Your task to perform on an android device: install app "Spotify" Image 0: 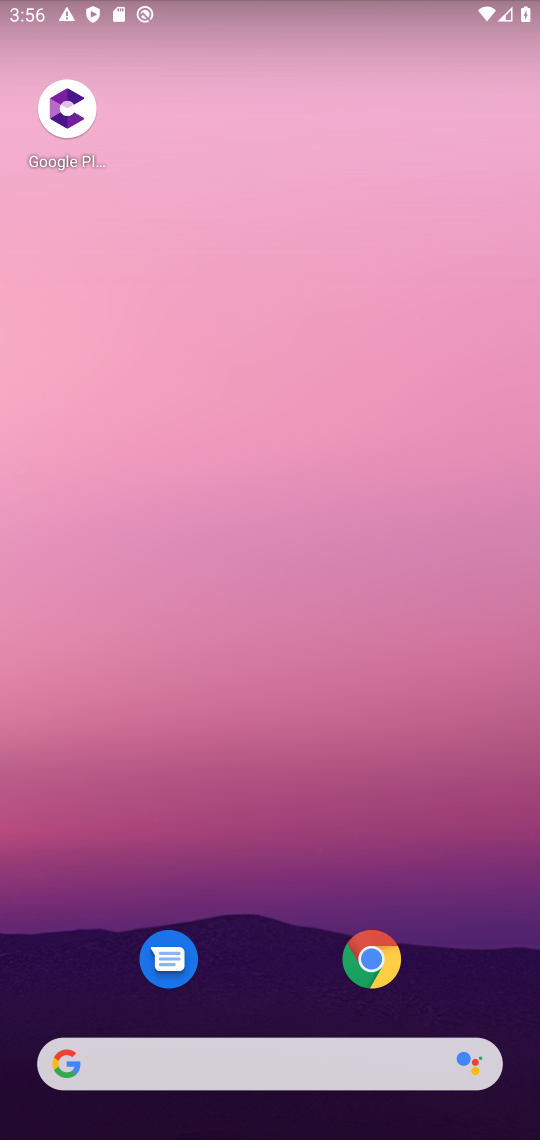
Step 0: drag from (303, 985) to (316, 59)
Your task to perform on an android device: install app "Spotify" Image 1: 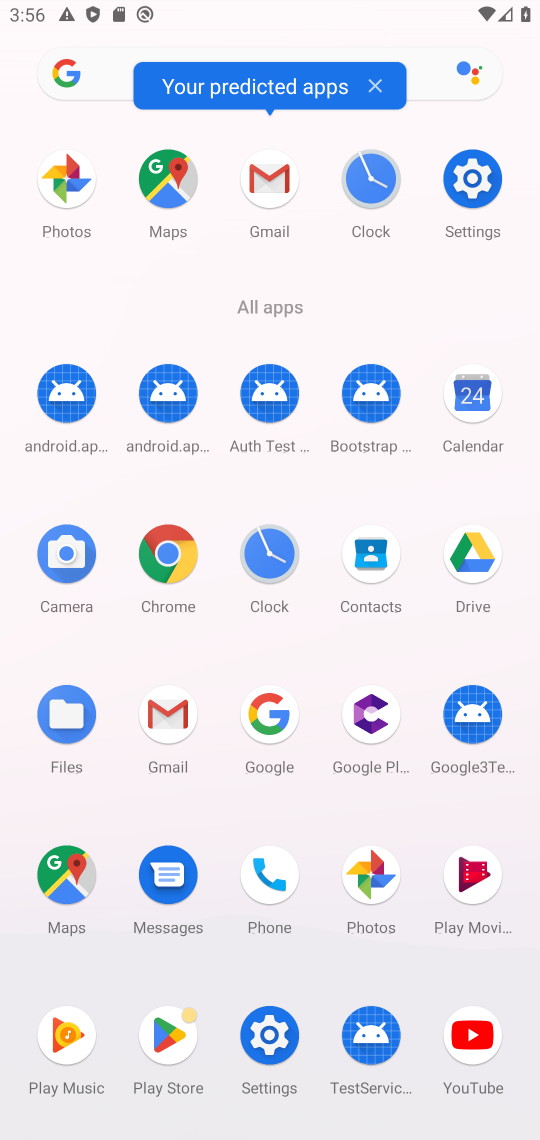
Step 1: click (183, 1038)
Your task to perform on an android device: install app "Spotify" Image 2: 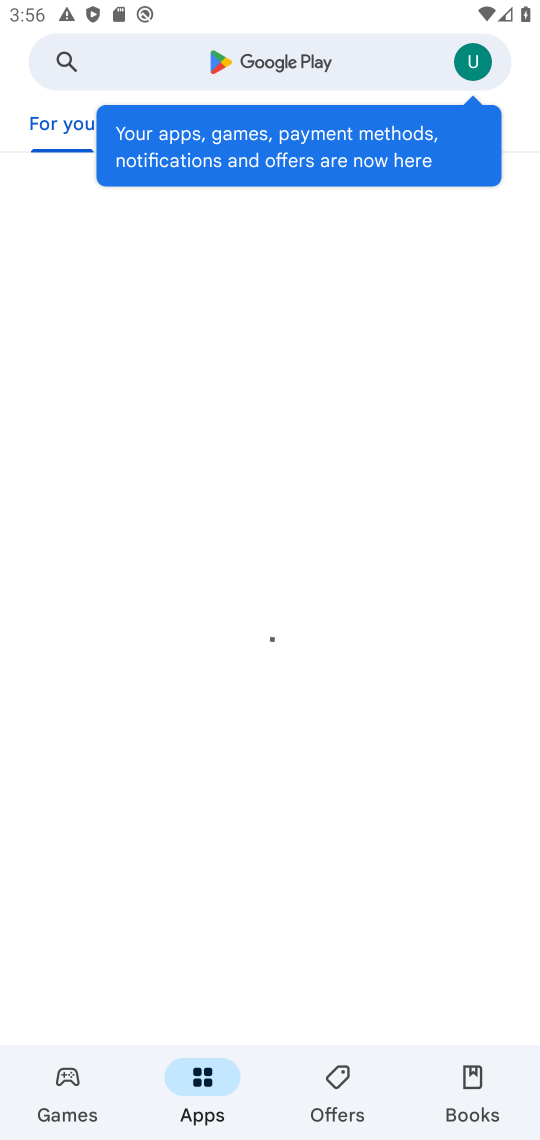
Step 2: click (341, 57)
Your task to perform on an android device: install app "Spotify" Image 3: 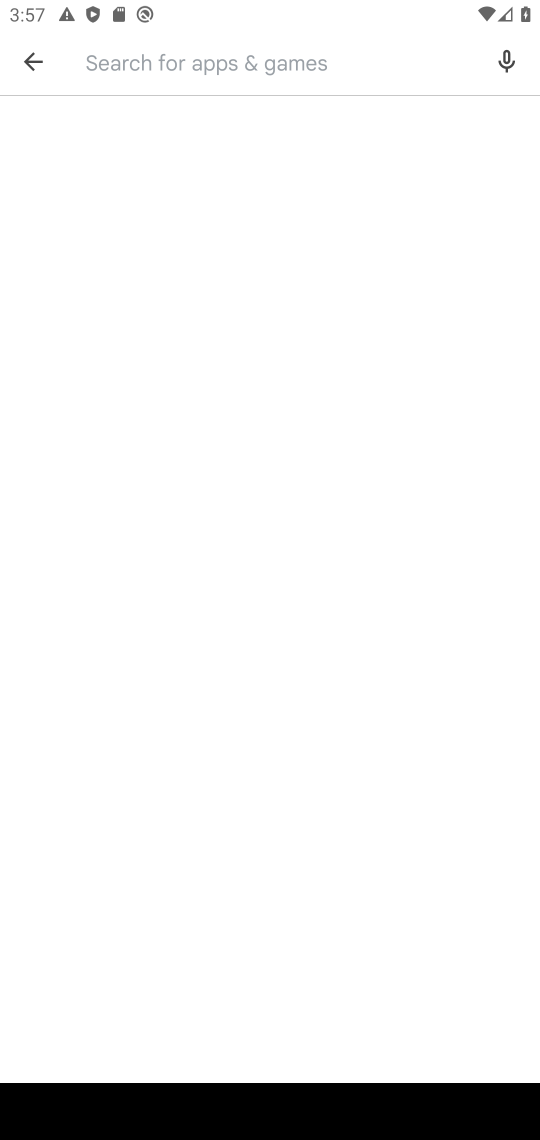
Step 3: type "spotify"
Your task to perform on an android device: install app "Spotify" Image 4: 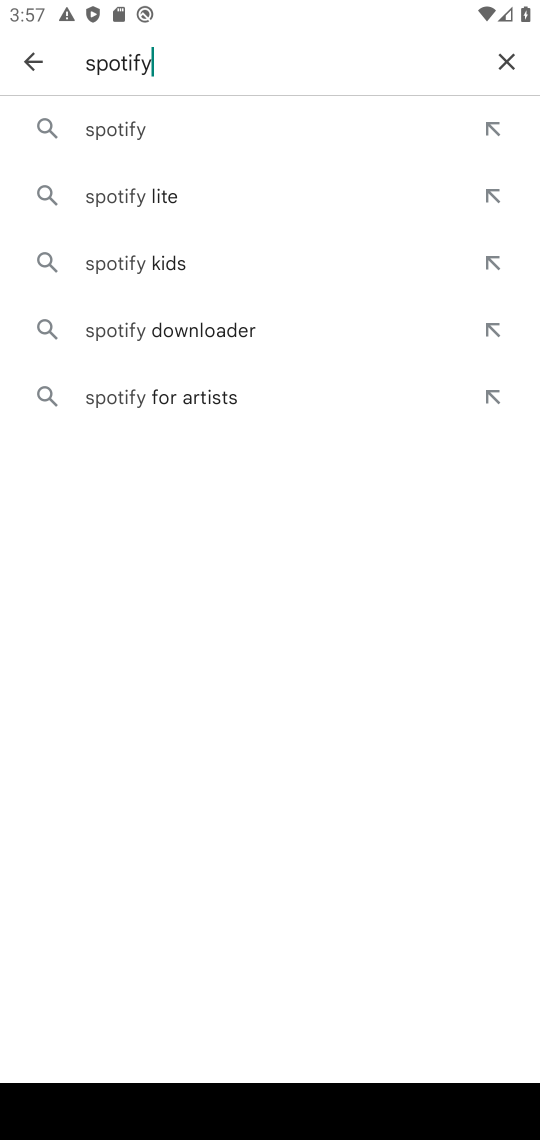
Step 4: click (236, 137)
Your task to perform on an android device: install app "Spotify" Image 5: 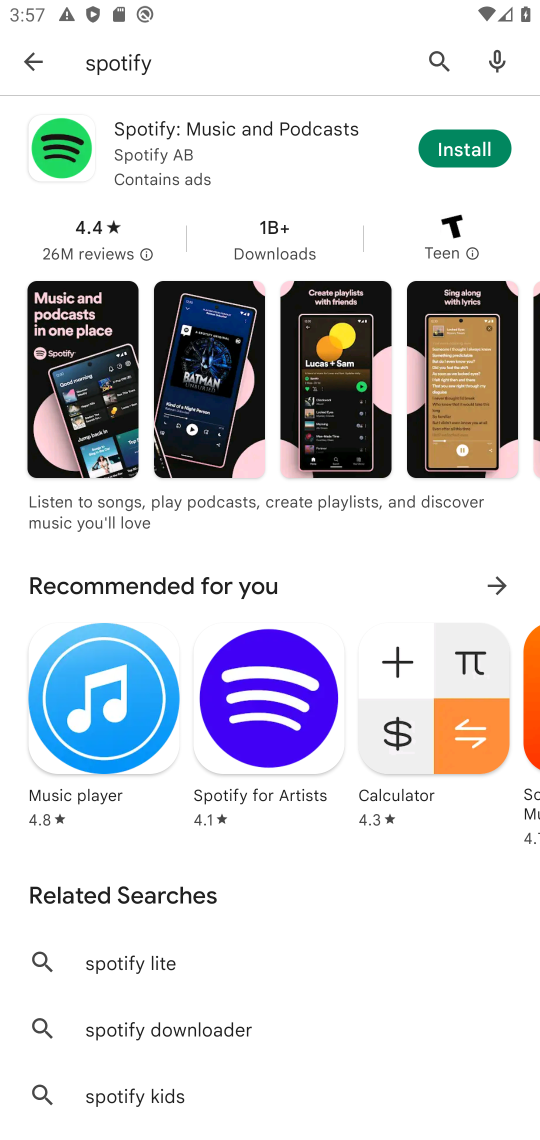
Step 5: click (469, 159)
Your task to perform on an android device: install app "Spotify" Image 6: 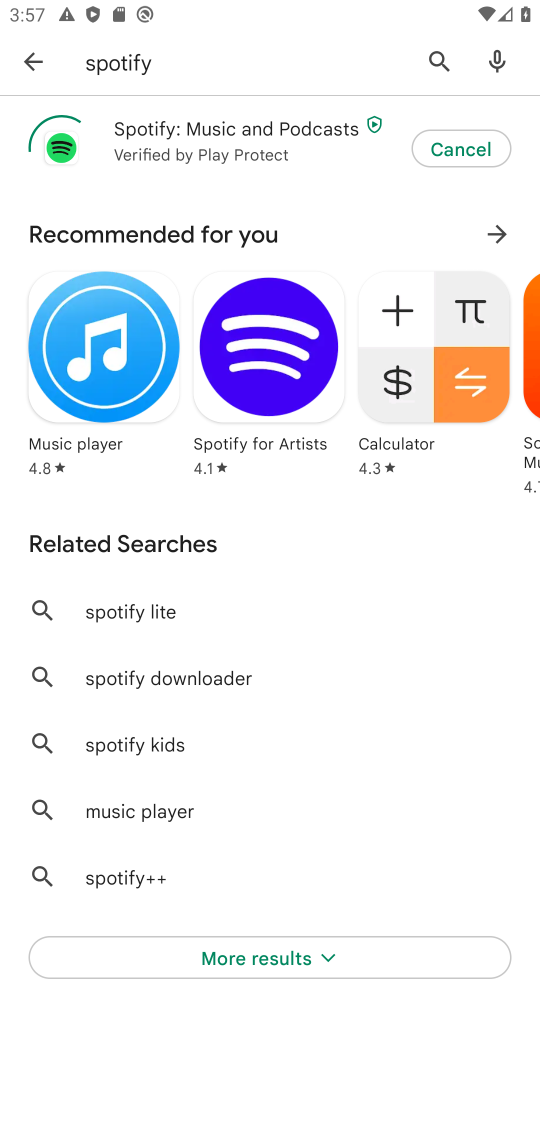
Step 6: task complete